Your task to perform on an android device: Turn off the flashlight Image 0: 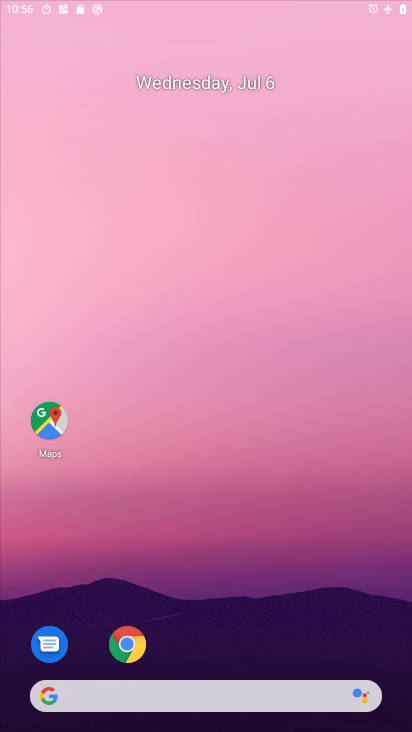
Step 0: drag from (229, 612) to (251, 118)
Your task to perform on an android device: Turn off the flashlight Image 1: 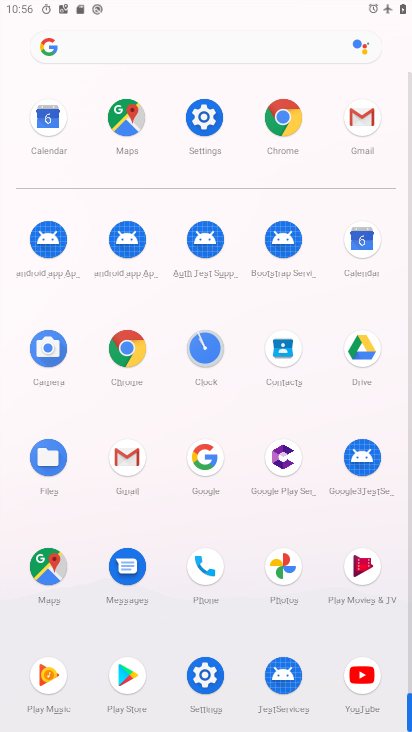
Step 1: task complete